Your task to perform on an android device: set the timer Image 0: 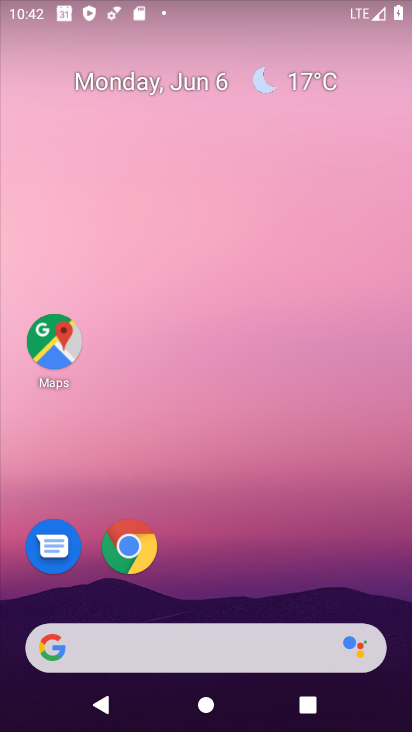
Step 0: drag from (246, 569) to (246, 44)
Your task to perform on an android device: set the timer Image 1: 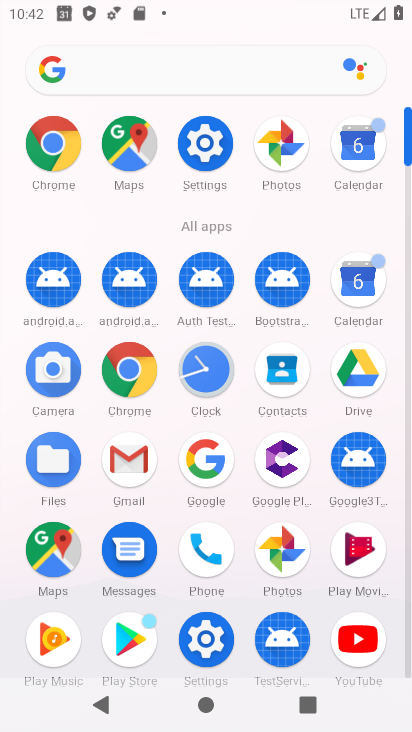
Step 1: click (216, 382)
Your task to perform on an android device: set the timer Image 2: 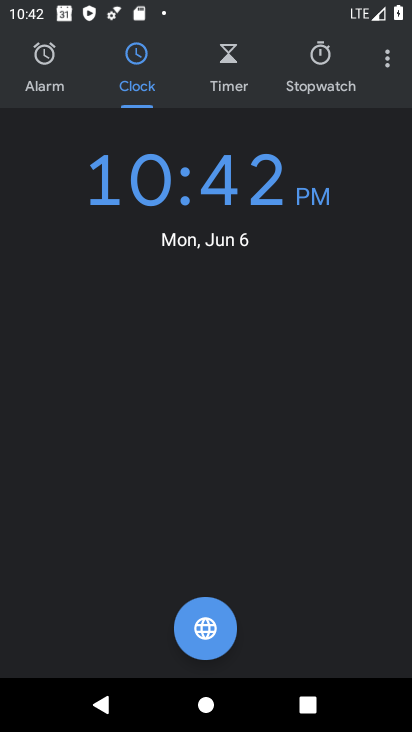
Step 2: click (232, 52)
Your task to perform on an android device: set the timer Image 3: 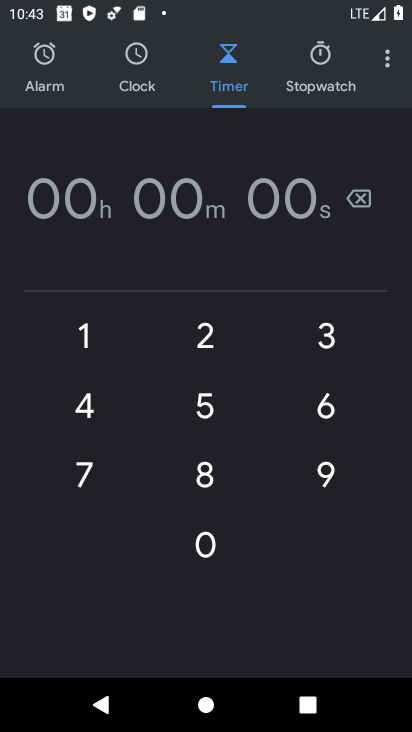
Step 3: click (196, 411)
Your task to perform on an android device: set the timer Image 4: 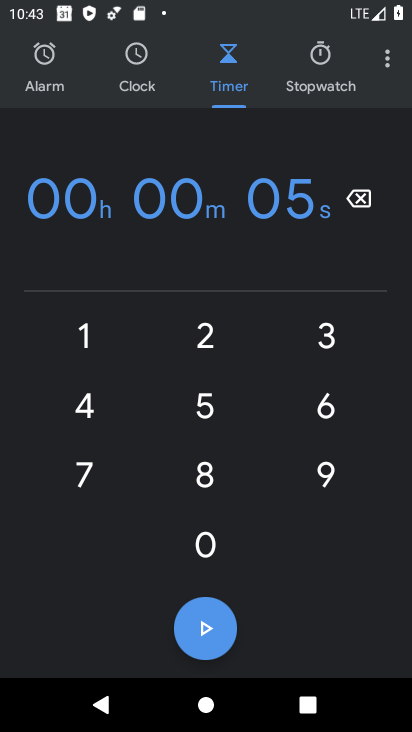
Step 4: task complete